Your task to perform on an android device: Show me the alarms in the clock app Image 0: 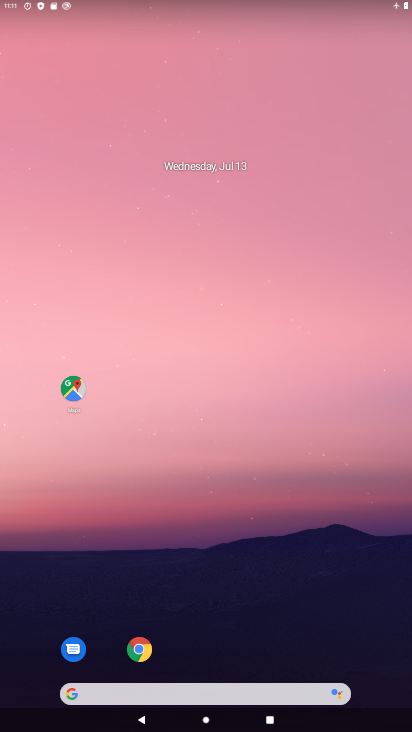
Step 0: drag from (226, 694) to (308, 37)
Your task to perform on an android device: Show me the alarms in the clock app Image 1: 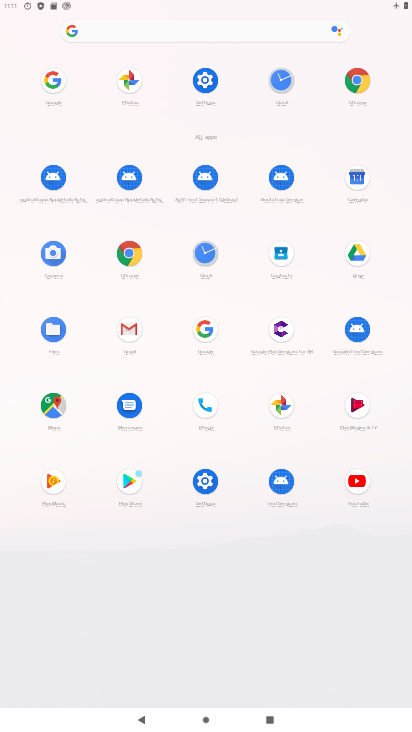
Step 1: click (281, 82)
Your task to perform on an android device: Show me the alarms in the clock app Image 2: 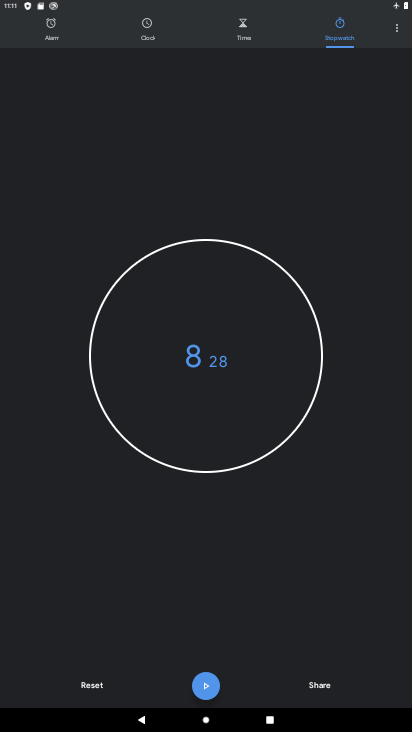
Step 2: click (48, 29)
Your task to perform on an android device: Show me the alarms in the clock app Image 3: 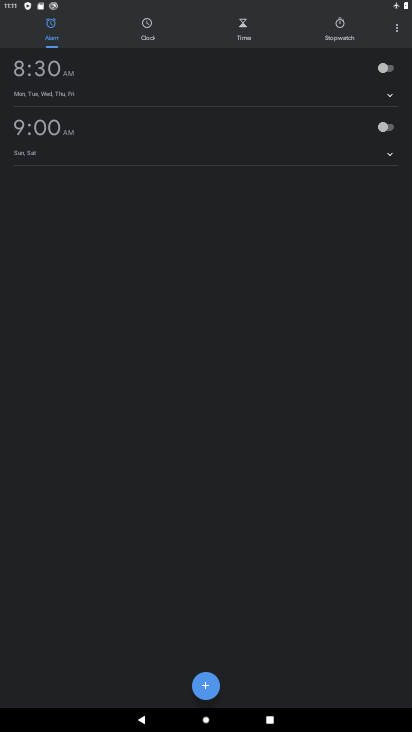
Step 3: click (204, 686)
Your task to perform on an android device: Show me the alarms in the clock app Image 4: 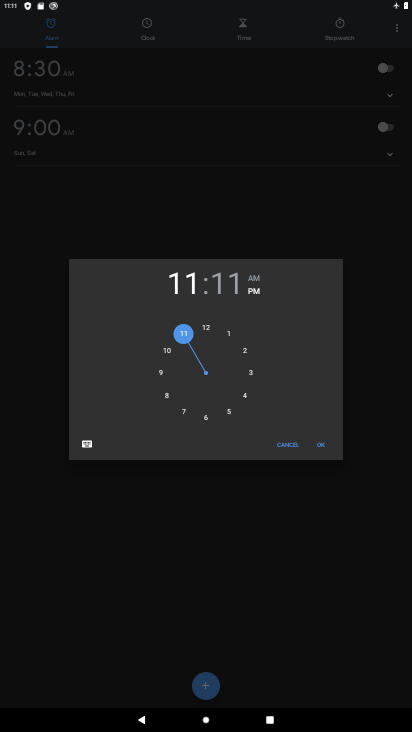
Step 4: click (187, 415)
Your task to perform on an android device: Show me the alarms in the clock app Image 5: 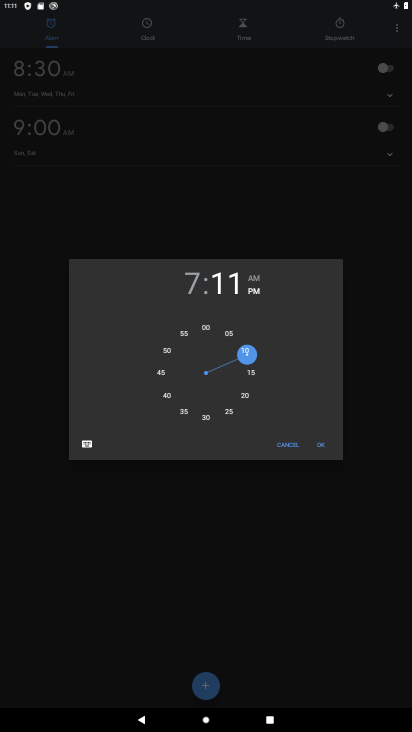
Step 5: click (187, 415)
Your task to perform on an android device: Show me the alarms in the clock app Image 6: 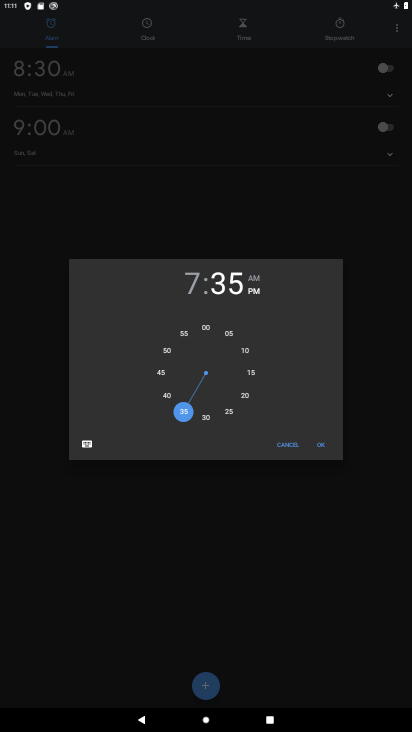
Step 6: click (320, 446)
Your task to perform on an android device: Show me the alarms in the clock app Image 7: 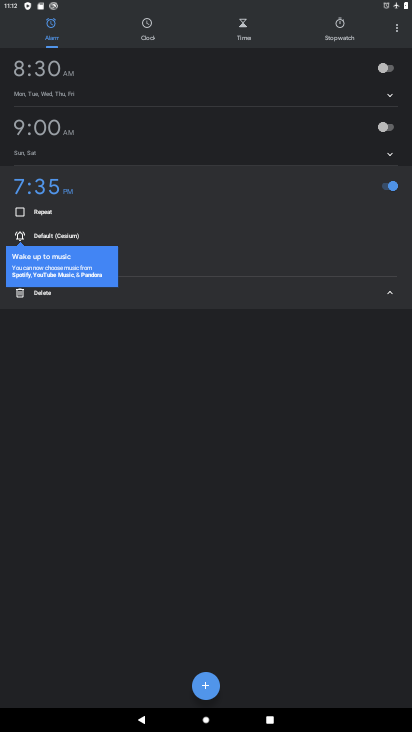
Step 7: task complete